Your task to perform on an android device: What's on my calendar today? Image 0: 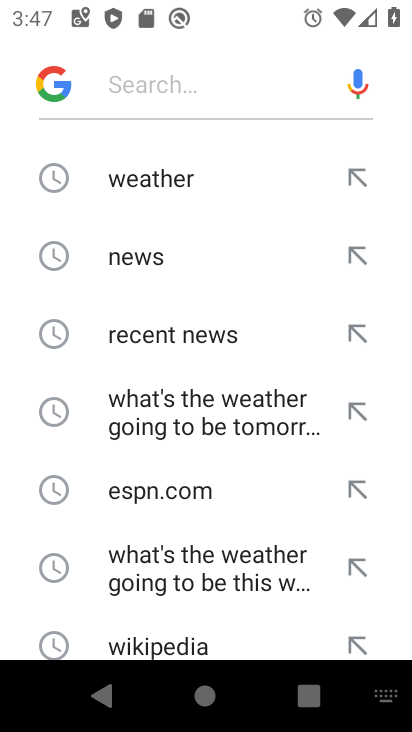
Step 0: press home button
Your task to perform on an android device: What's on my calendar today? Image 1: 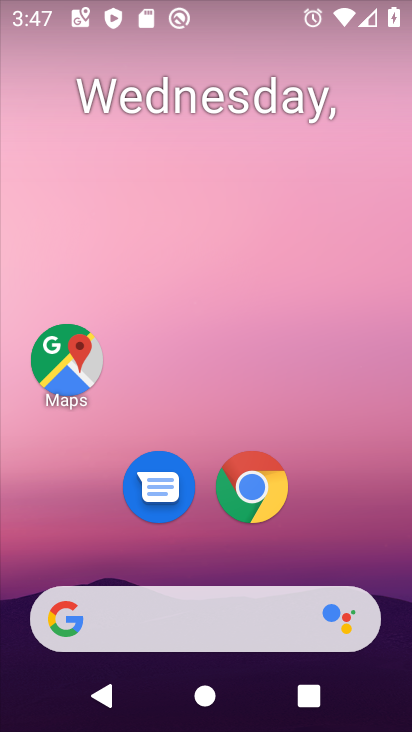
Step 1: drag from (361, 554) to (374, 162)
Your task to perform on an android device: What's on my calendar today? Image 2: 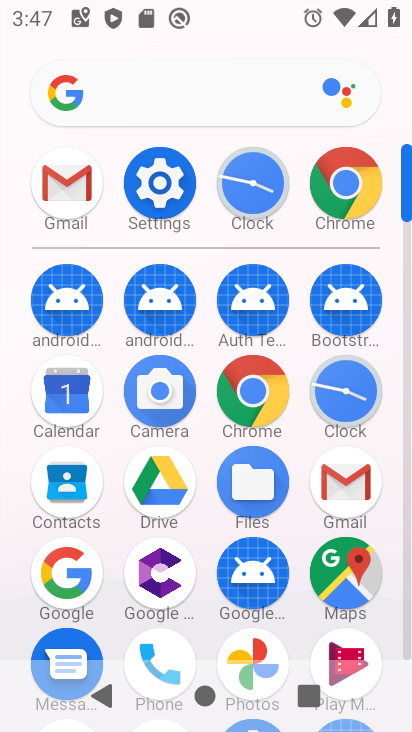
Step 2: click (75, 402)
Your task to perform on an android device: What's on my calendar today? Image 3: 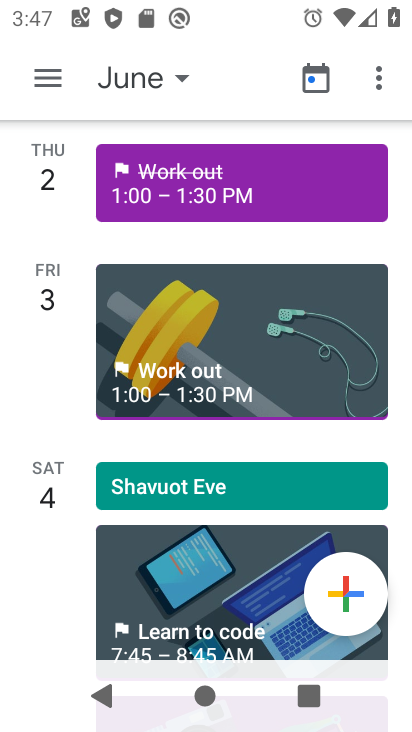
Step 3: click (188, 189)
Your task to perform on an android device: What's on my calendar today? Image 4: 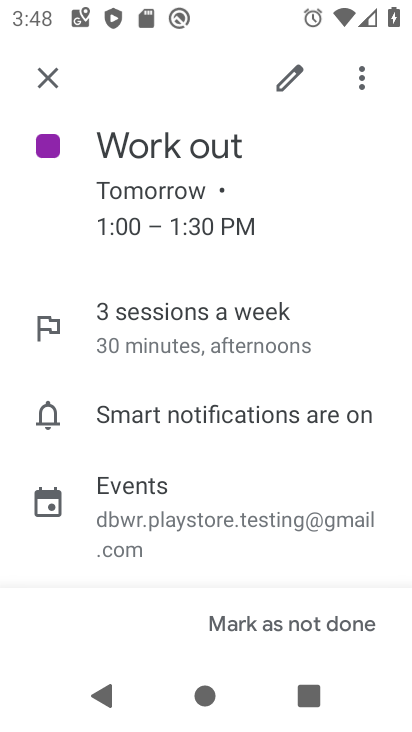
Step 4: task complete